Your task to perform on an android device: visit the assistant section in the google photos Image 0: 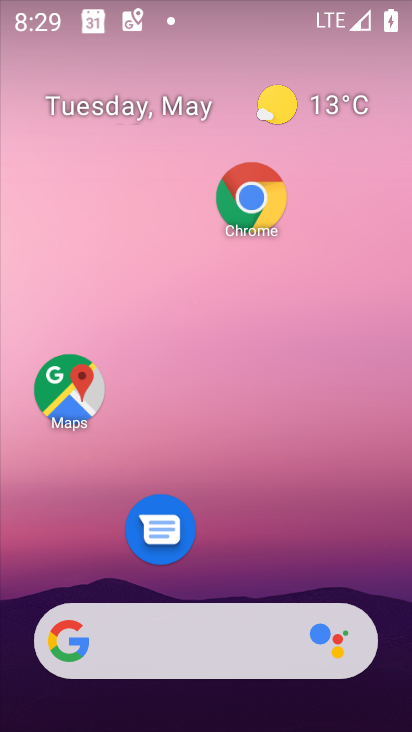
Step 0: drag from (324, 569) to (231, 93)
Your task to perform on an android device: visit the assistant section in the google photos Image 1: 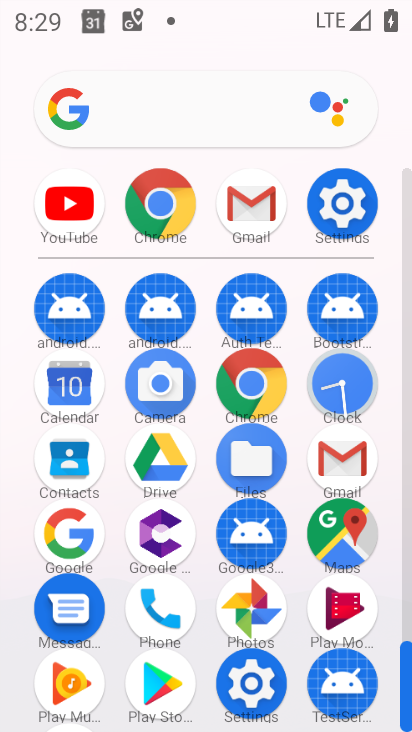
Step 1: click (256, 613)
Your task to perform on an android device: visit the assistant section in the google photos Image 2: 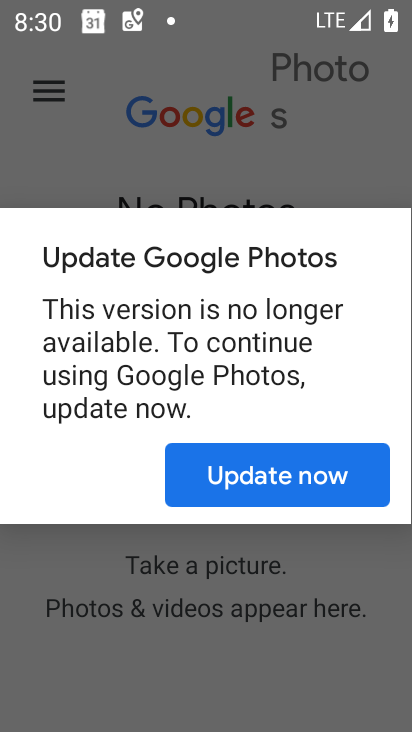
Step 2: click (196, 496)
Your task to perform on an android device: visit the assistant section in the google photos Image 3: 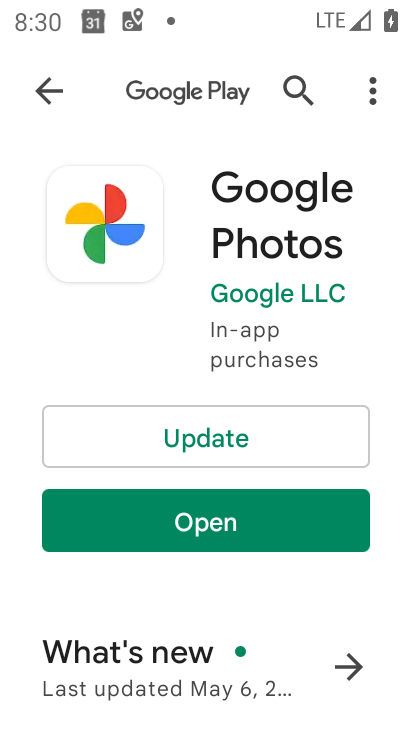
Step 3: click (234, 435)
Your task to perform on an android device: visit the assistant section in the google photos Image 4: 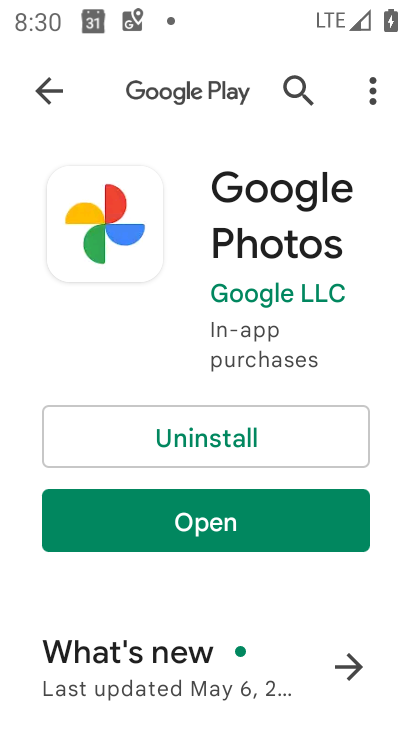
Step 4: click (259, 529)
Your task to perform on an android device: visit the assistant section in the google photos Image 5: 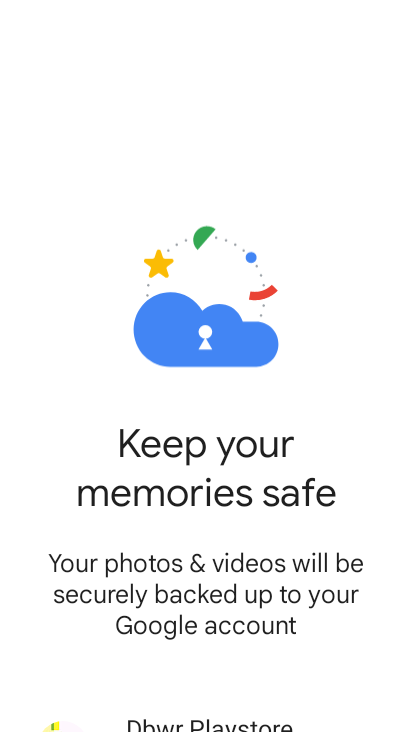
Step 5: drag from (301, 534) to (329, 81)
Your task to perform on an android device: visit the assistant section in the google photos Image 6: 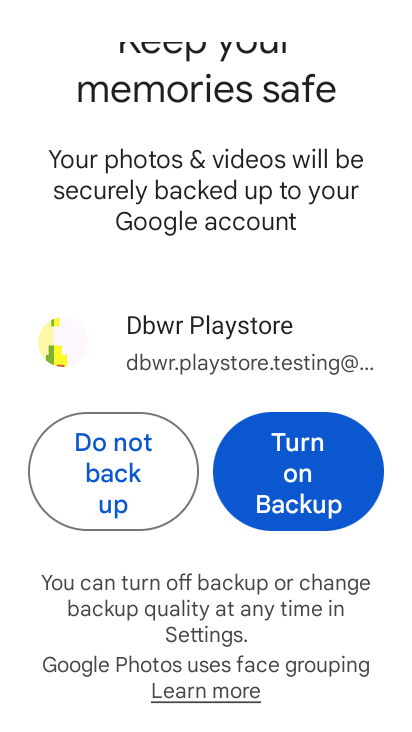
Step 6: click (339, 477)
Your task to perform on an android device: visit the assistant section in the google photos Image 7: 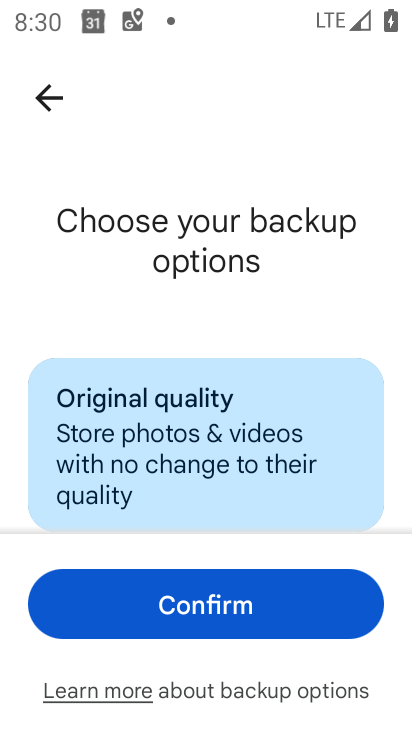
Step 7: click (244, 600)
Your task to perform on an android device: visit the assistant section in the google photos Image 8: 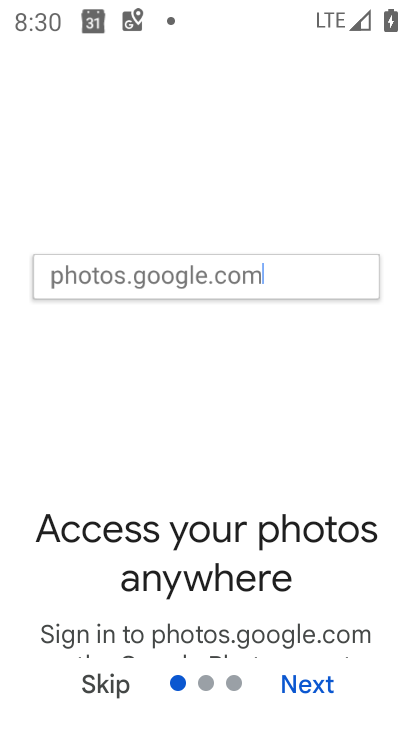
Step 8: click (96, 687)
Your task to perform on an android device: visit the assistant section in the google photos Image 9: 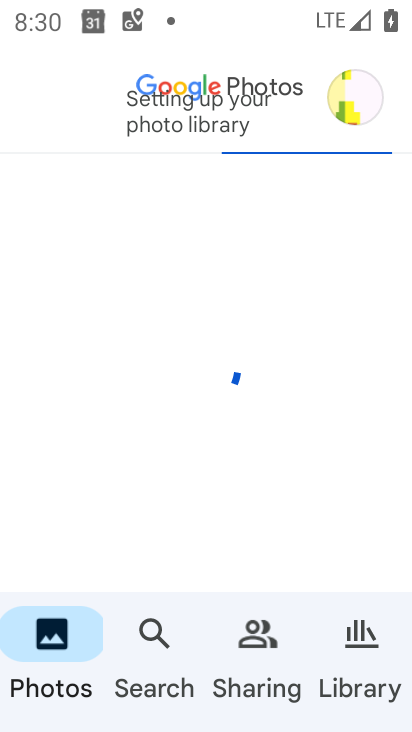
Step 9: click (351, 107)
Your task to perform on an android device: visit the assistant section in the google photos Image 10: 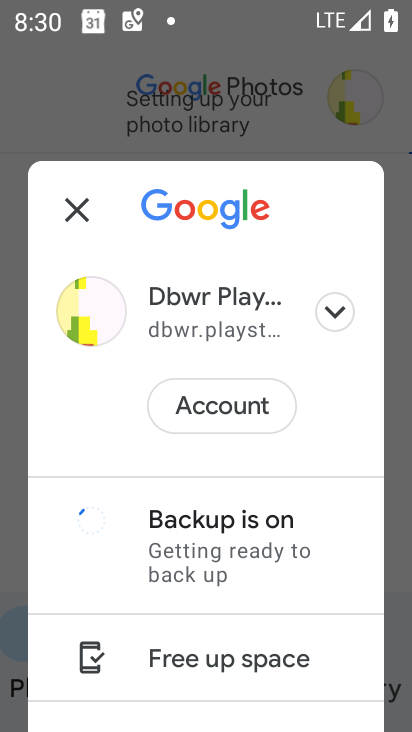
Step 10: drag from (244, 641) to (244, 241)
Your task to perform on an android device: visit the assistant section in the google photos Image 11: 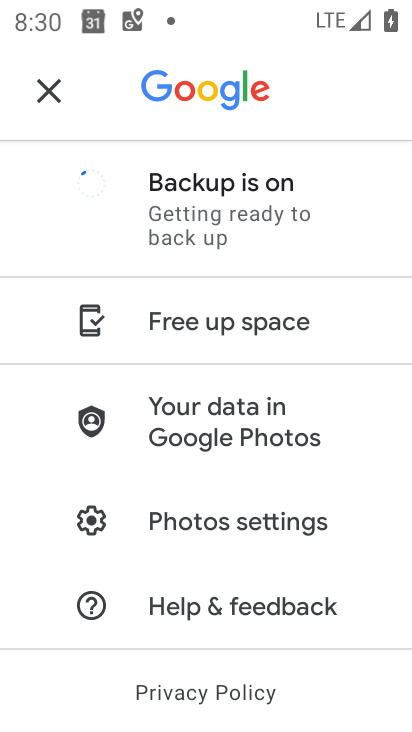
Step 11: click (218, 536)
Your task to perform on an android device: visit the assistant section in the google photos Image 12: 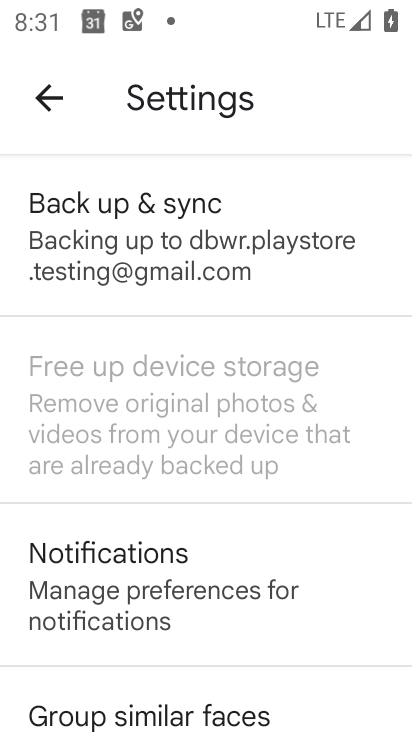
Step 12: click (214, 597)
Your task to perform on an android device: visit the assistant section in the google photos Image 13: 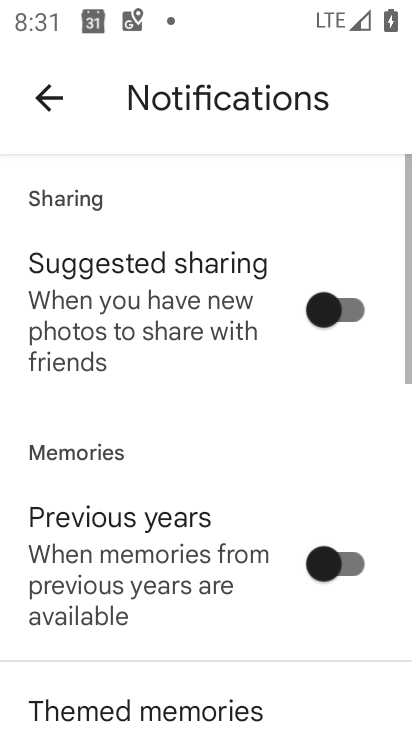
Step 13: task complete